Your task to perform on an android device: toggle javascript in the chrome app Image 0: 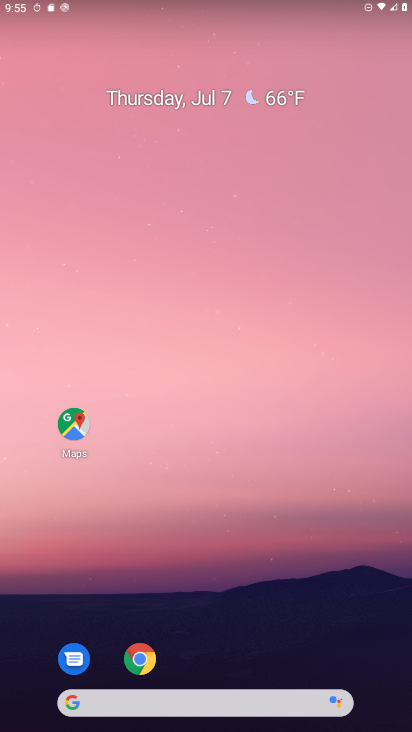
Step 0: drag from (375, 654) to (266, 1)
Your task to perform on an android device: toggle javascript in the chrome app Image 1: 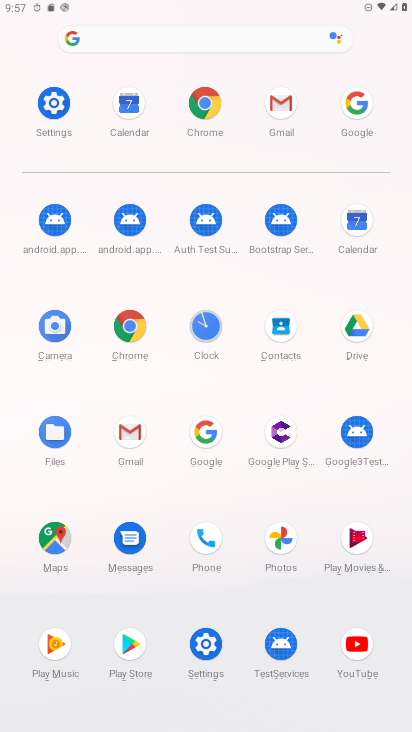
Step 1: click (209, 100)
Your task to perform on an android device: toggle javascript in the chrome app Image 2: 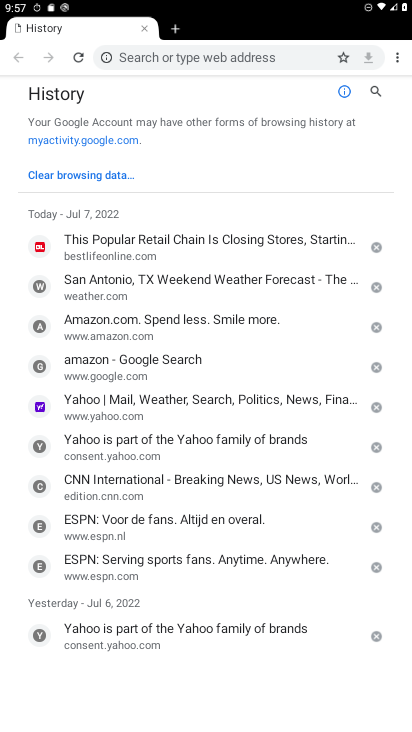
Step 2: click (396, 54)
Your task to perform on an android device: toggle javascript in the chrome app Image 3: 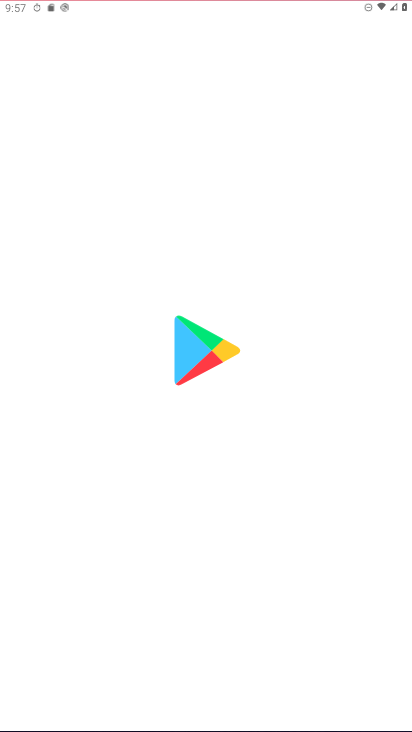
Step 3: click (394, 56)
Your task to perform on an android device: toggle javascript in the chrome app Image 4: 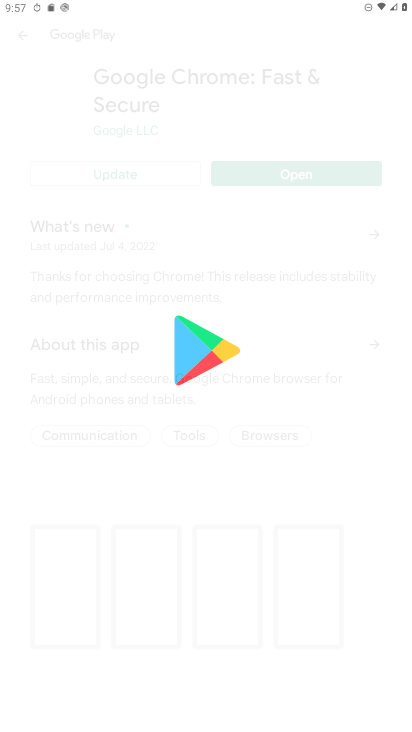
Step 4: press back button
Your task to perform on an android device: toggle javascript in the chrome app Image 5: 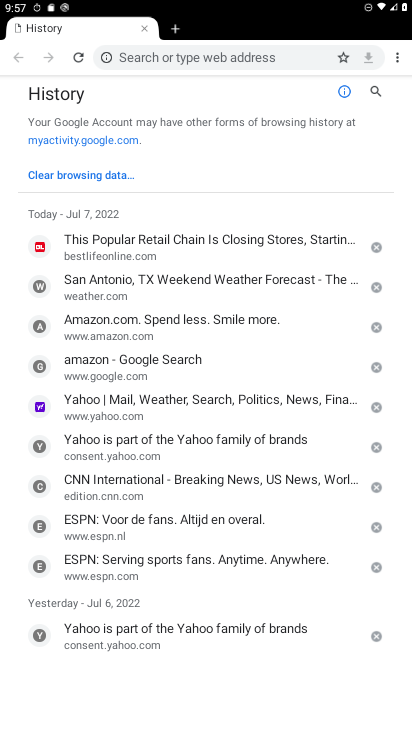
Step 5: click (390, 60)
Your task to perform on an android device: toggle javascript in the chrome app Image 6: 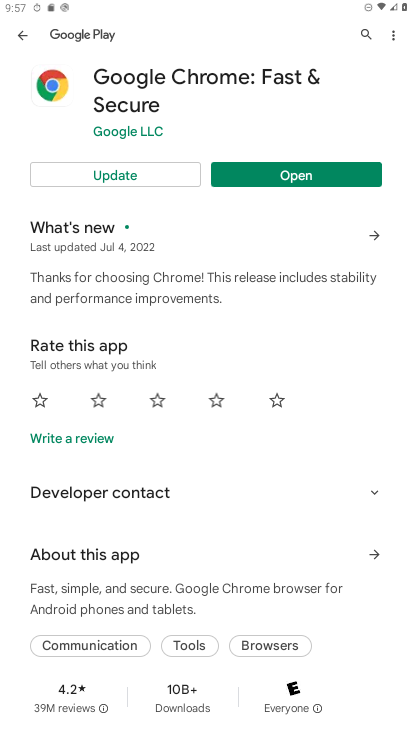
Step 6: task complete